Your task to perform on an android device: What's the weather today? Image 0: 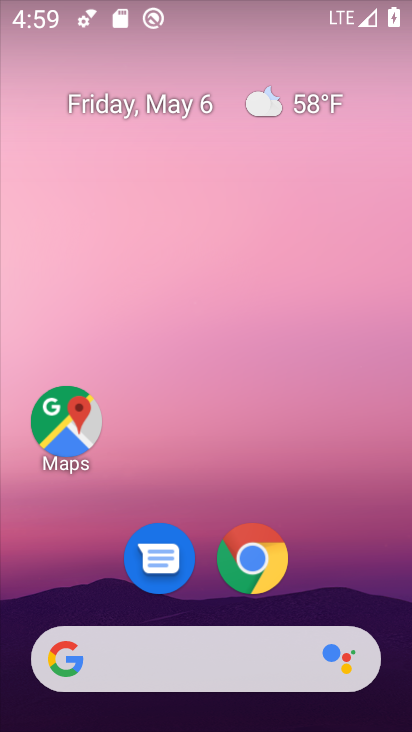
Step 0: drag from (346, 617) to (343, 33)
Your task to perform on an android device: What's the weather today? Image 1: 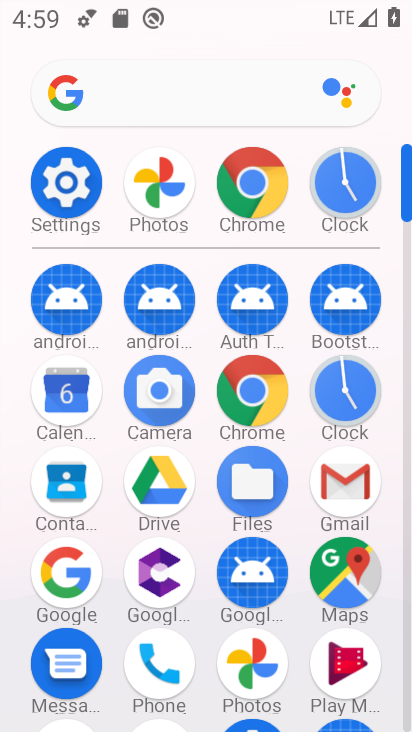
Step 1: click (256, 383)
Your task to perform on an android device: What's the weather today? Image 2: 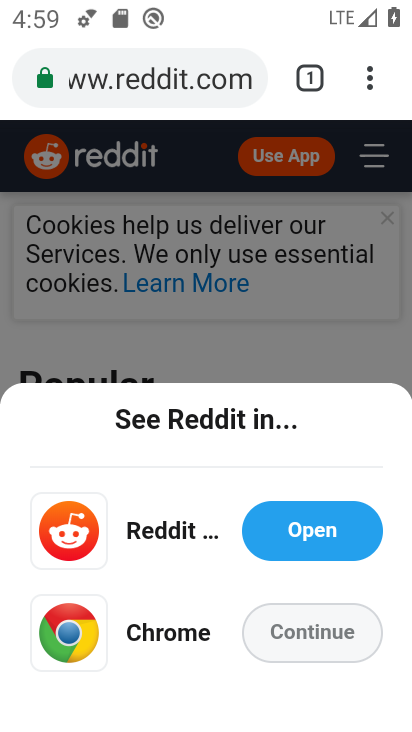
Step 2: click (230, 89)
Your task to perform on an android device: What's the weather today? Image 3: 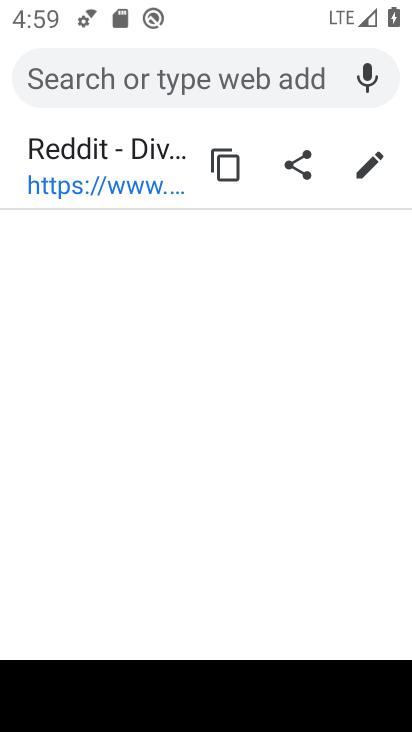
Step 3: type "weather today"
Your task to perform on an android device: What's the weather today? Image 4: 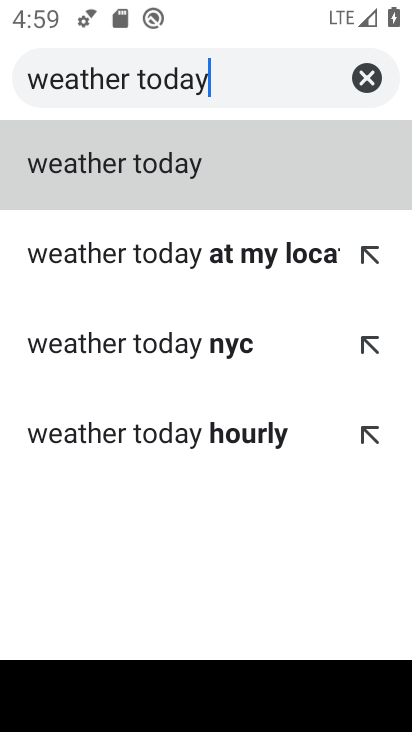
Step 4: click (242, 158)
Your task to perform on an android device: What's the weather today? Image 5: 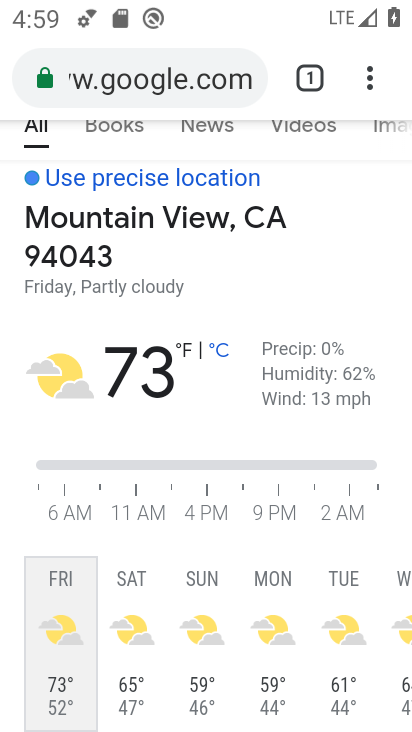
Step 5: task complete